Your task to perform on an android device: turn off priority inbox in the gmail app Image 0: 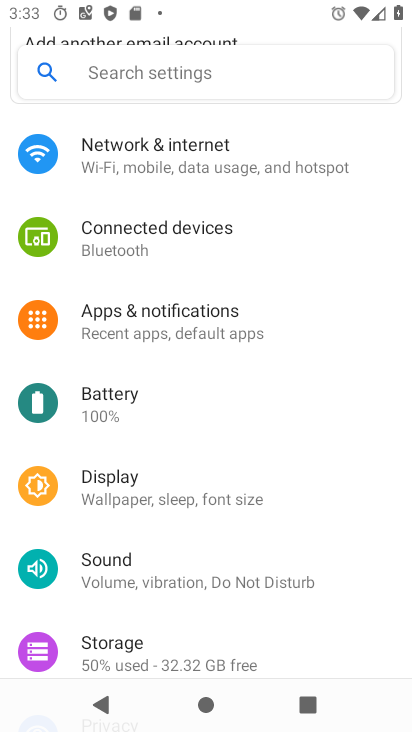
Step 0: press home button
Your task to perform on an android device: turn off priority inbox in the gmail app Image 1: 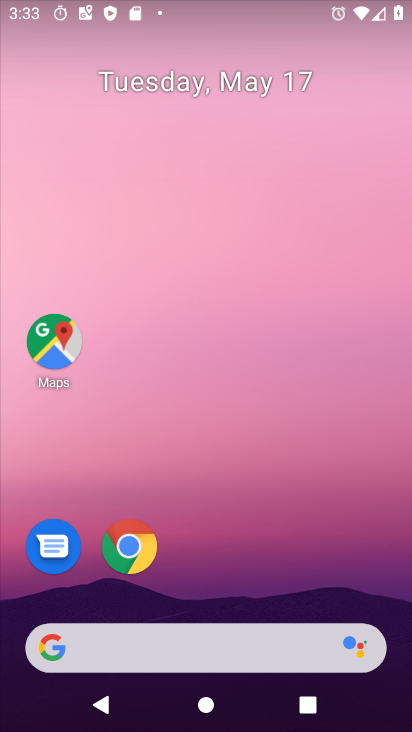
Step 1: drag from (208, 572) to (230, 72)
Your task to perform on an android device: turn off priority inbox in the gmail app Image 2: 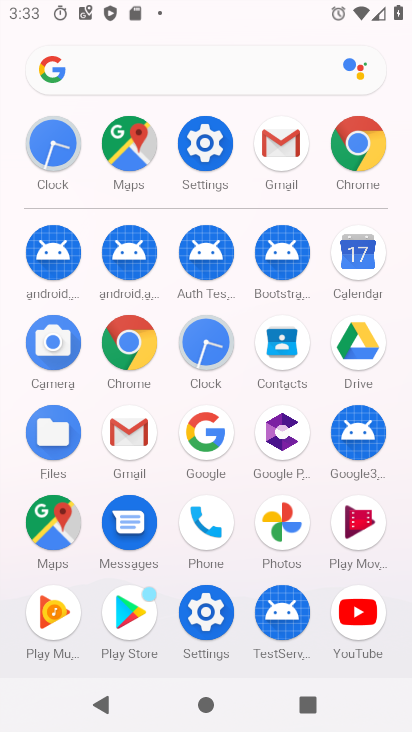
Step 2: click (120, 454)
Your task to perform on an android device: turn off priority inbox in the gmail app Image 3: 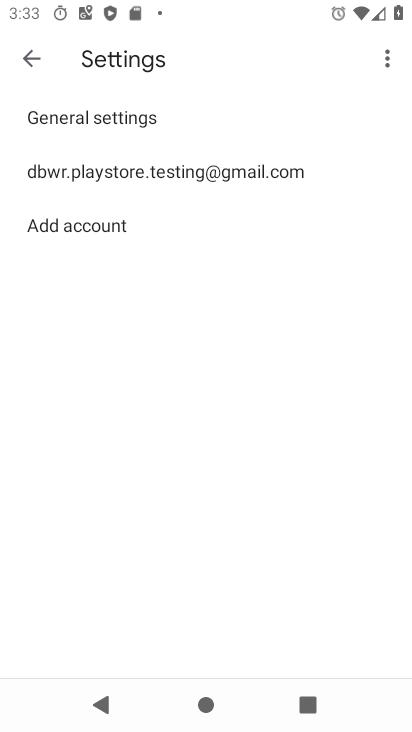
Step 3: click (192, 168)
Your task to perform on an android device: turn off priority inbox in the gmail app Image 4: 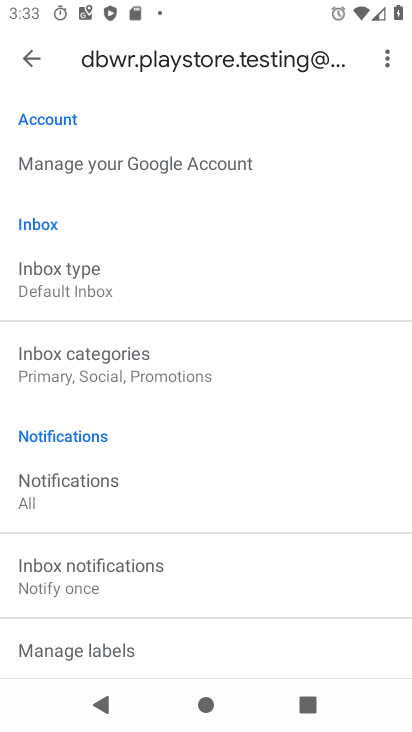
Step 4: task complete